Your task to perform on an android device: see tabs open on other devices in the chrome app Image 0: 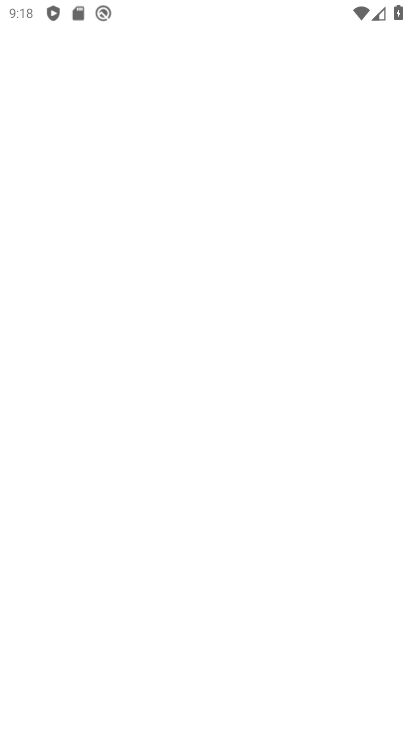
Step 0: click (274, 597)
Your task to perform on an android device: see tabs open on other devices in the chrome app Image 1: 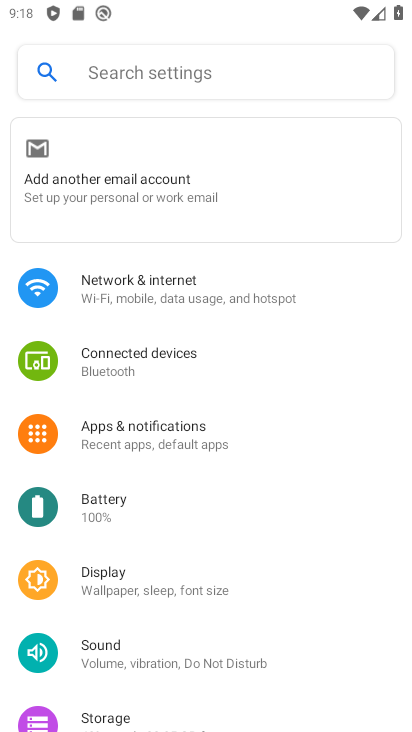
Step 1: press home button
Your task to perform on an android device: see tabs open on other devices in the chrome app Image 2: 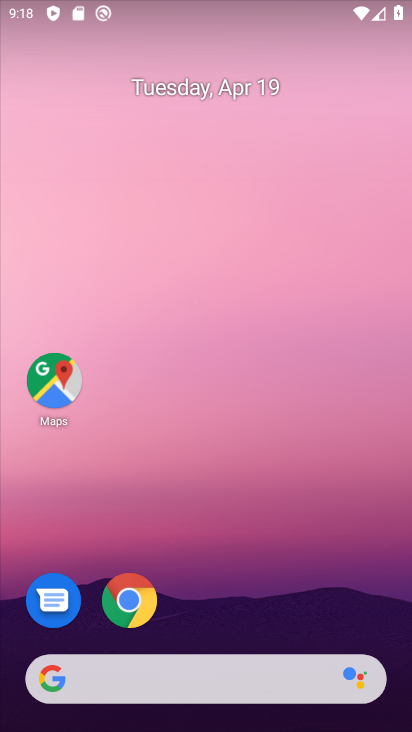
Step 2: click (129, 610)
Your task to perform on an android device: see tabs open on other devices in the chrome app Image 3: 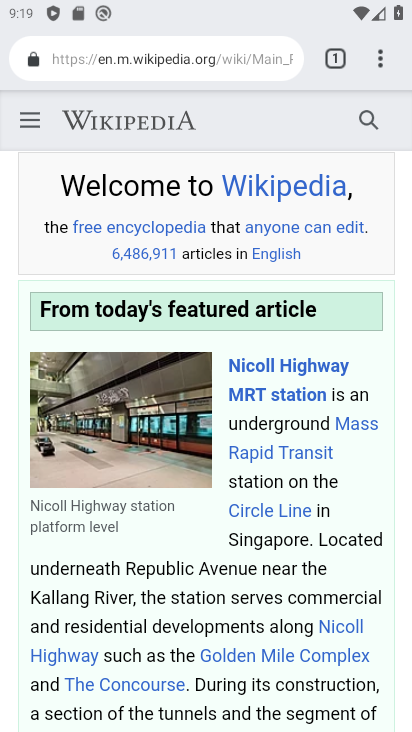
Step 3: click (387, 56)
Your task to perform on an android device: see tabs open on other devices in the chrome app Image 4: 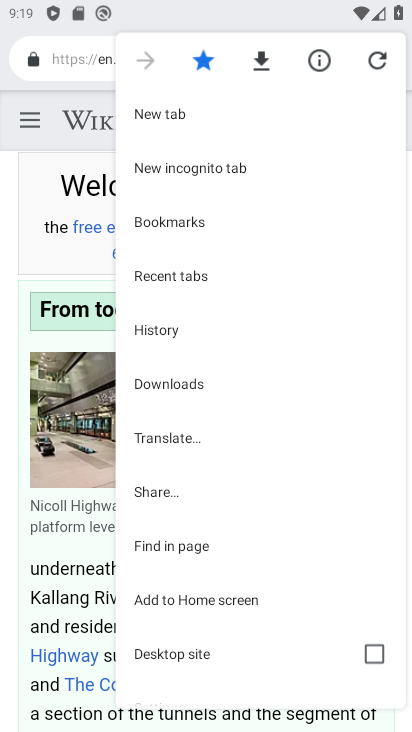
Step 4: click (200, 271)
Your task to perform on an android device: see tabs open on other devices in the chrome app Image 5: 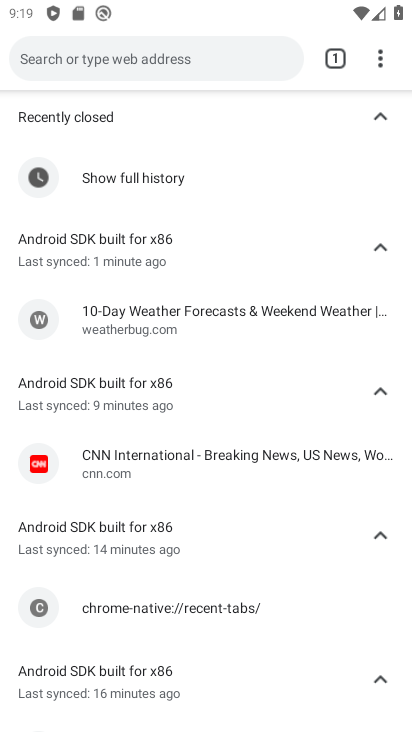
Step 5: task complete